Your task to perform on an android device: change alarm snooze length Image 0: 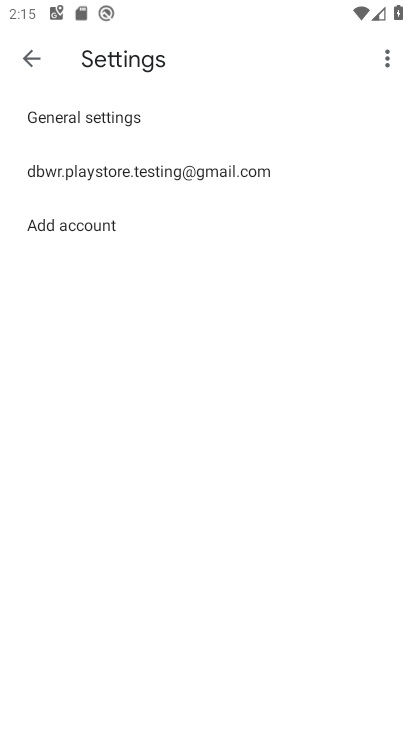
Step 0: press home button
Your task to perform on an android device: change alarm snooze length Image 1: 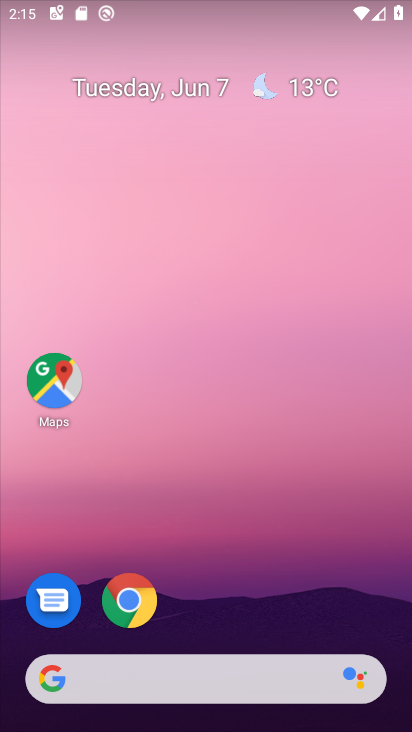
Step 1: drag from (278, 605) to (378, 442)
Your task to perform on an android device: change alarm snooze length Image 2: 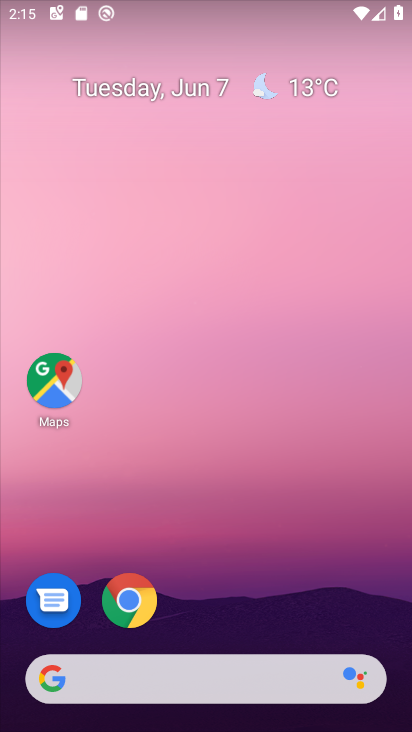
Step 2: drag from (201, 602) to (331, 50)
Your task to perform on an android device: change alarm snooze length Image 3: 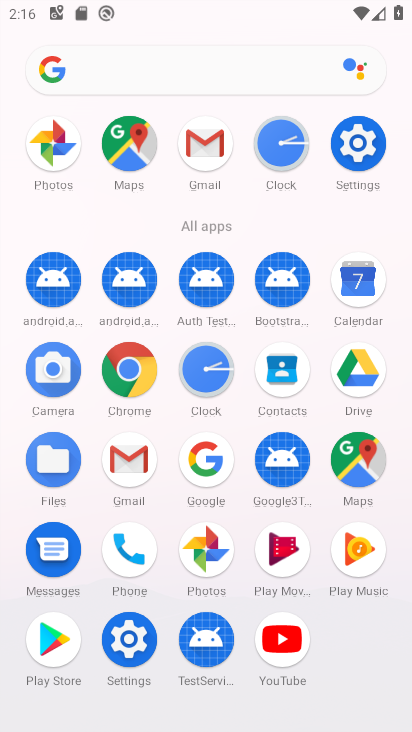
Step 3: click (207, 371)
Your task to perform on an android device: change alarm snooze length Image 4: 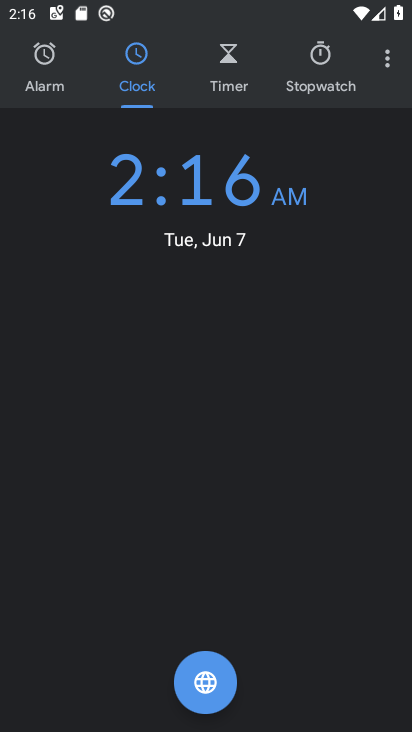
Step 4: click (391, 65)
Your task to perform on an android device: change alarm snooze length Image 5: 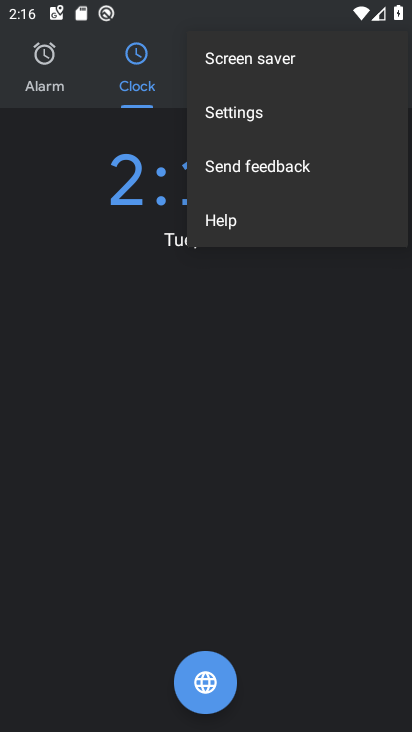
Step 5: click (237, 118)
Your task to perform on an android device: change alarm snooze length Image 6: 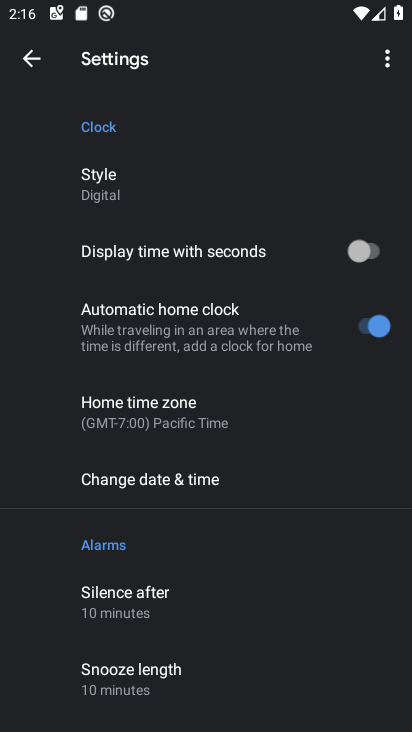
Step 6: drag from (197, 595) to (217, 349)
Your task to perform on an android device: change alarm snooze length Image 7: 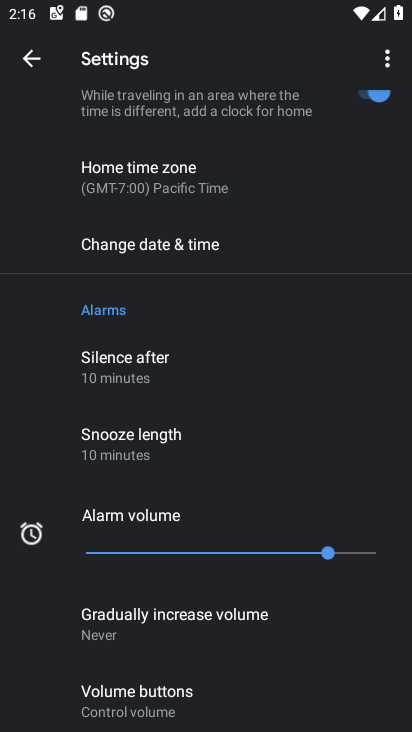
Step 7: click (147, 456)
Your task to perform on an android device: change alarm snooze length Image 8: 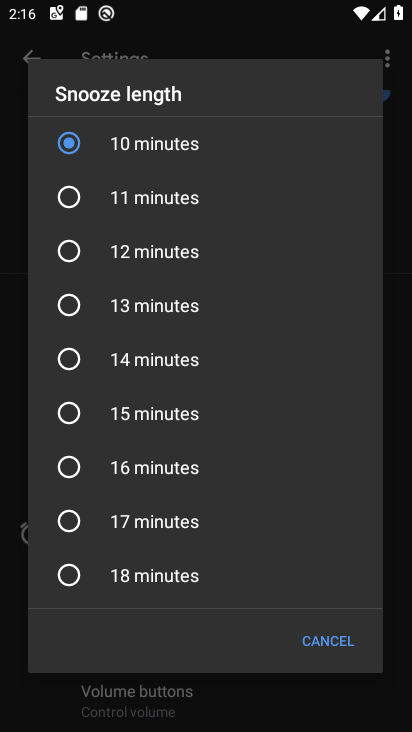
Step 8: click (93, 353)
Your task to perform on an android device: change alarm snooze length Image 9: 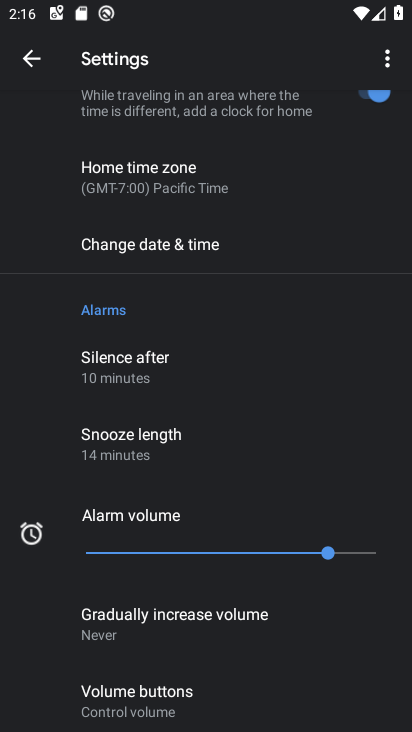
Step 9: task complete